Your task to perform on an android device: Search for Italian restaurants on Maps Image 0: 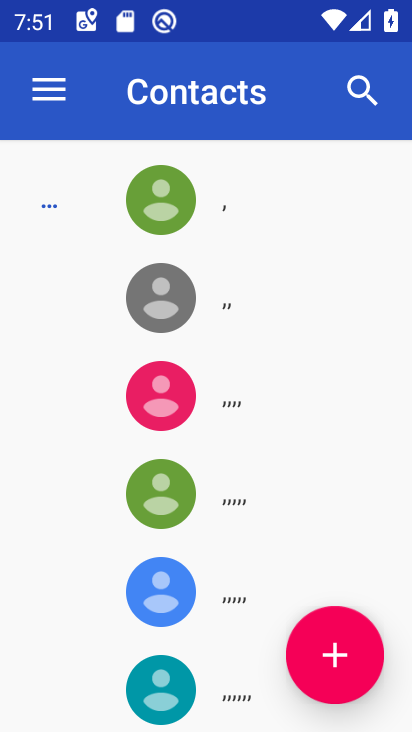
Step 0: press home button
Your task to perform on an android device: Search for Italian restaurants on Maps Image 1: 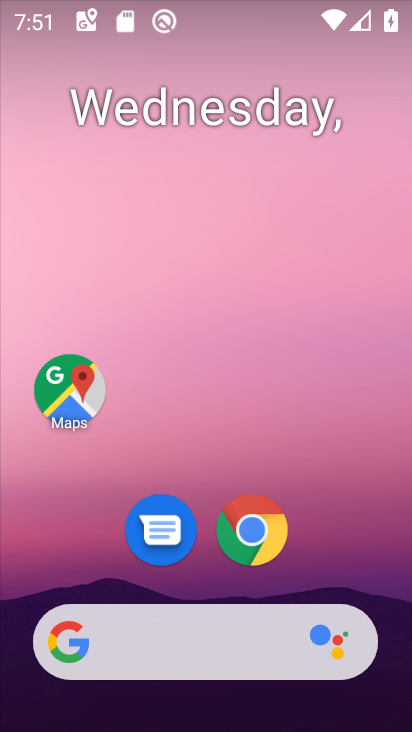
Step 1: drag from (408, 620) to (319, 60)
Your task to perform on an android device: Search for Italian restaurants on Maps Image 2: 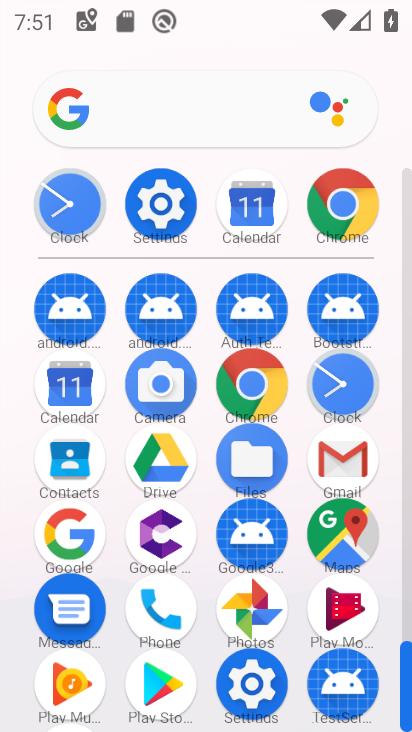
Step 2: click (345, 530)
Your task to perform on an android device: Search for Italian restaurants on Maps Image 3: 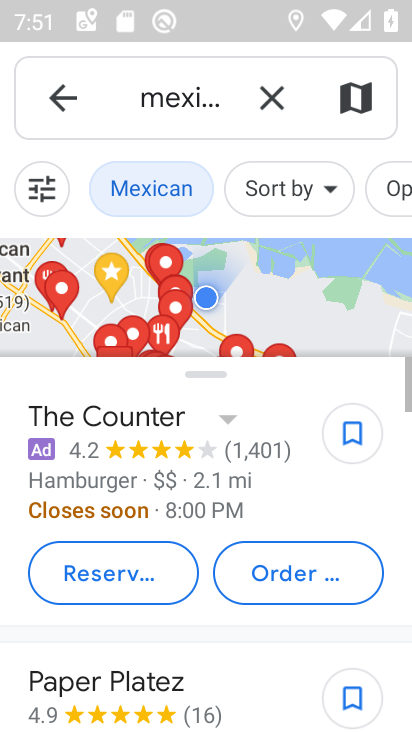
Step 3: click (275, 93)
Your task to perform on an android device: Search for Italian restaurants on Maps Image 4: 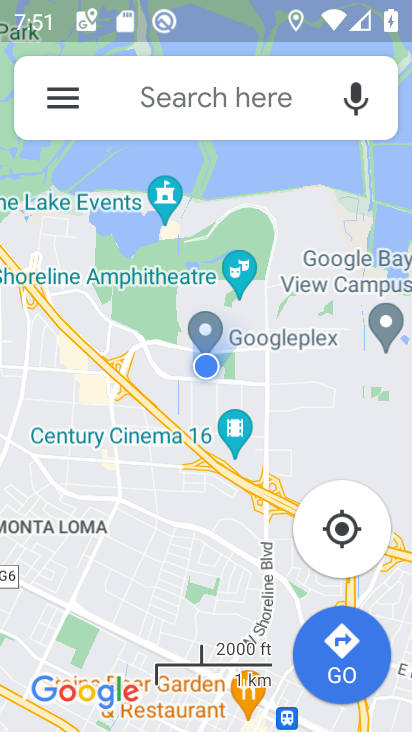
Step 4: click (104, 97)
Your task to perform on an android device: Search for Italian restaurants on Maps Image 5: 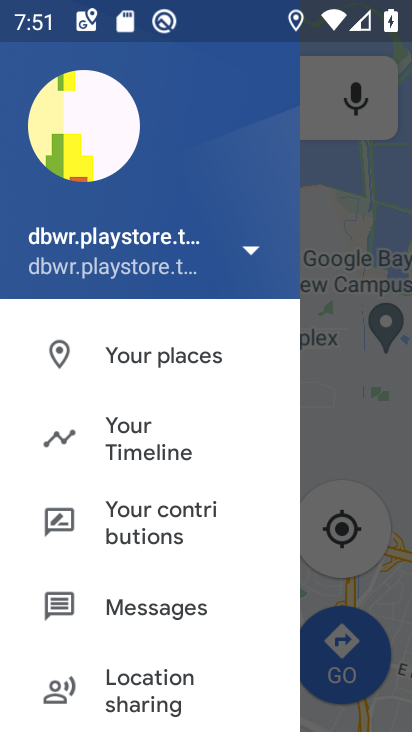
Step 5: click (313, 122)
Your task to perform on an android device: Search for Italian restaurants on Maps Image 6: 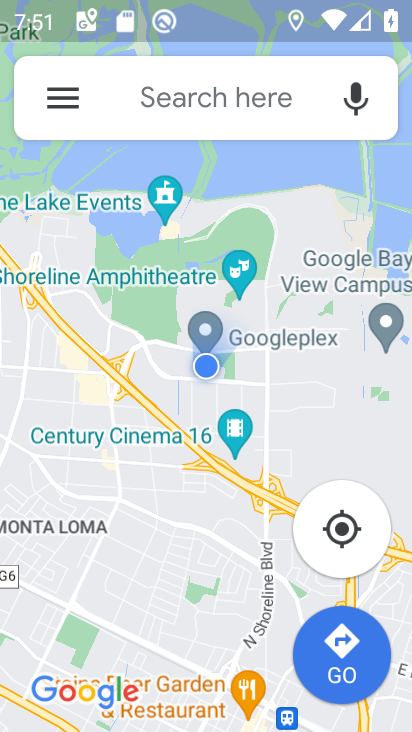
Step 6: click (222, 102)
Your task to perform on an android device: Search for Italian restaurants on Maps Image 7: 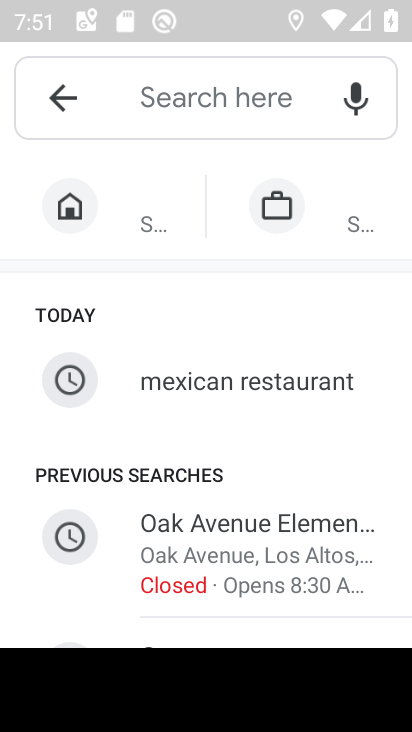
Step 7: type "italian restaurants"
Your task to perform on an android device: Search for Italian restaurants on Maps Image 8: 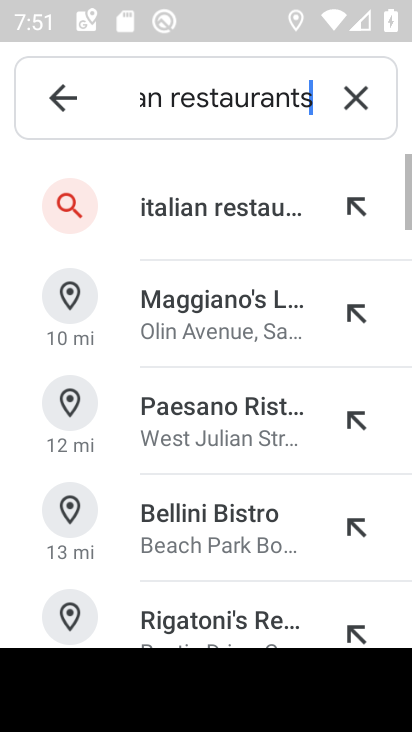
Step 8: click (155, 209)
Your task to perform on an android device: Search for Italian restaurants on Maps Image 9: 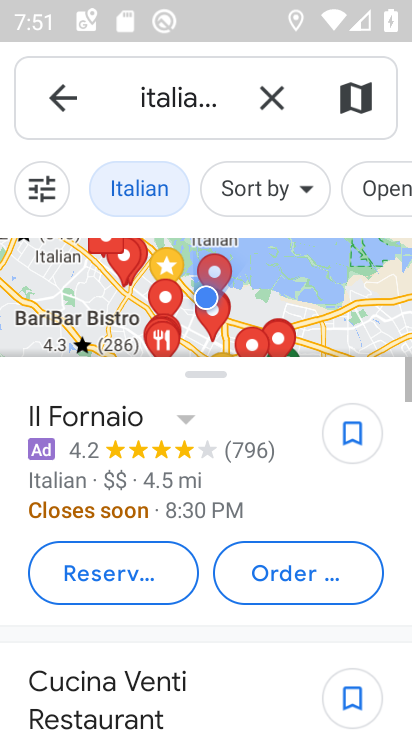
Step 9: task complete